Your task to perform on an android device: change your default location settings in chrome Image 0: 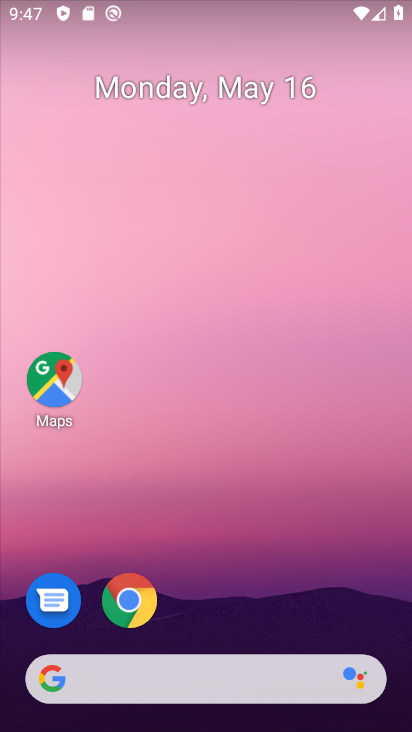
Step 0: drag from (318, 567) to (325, 222)
Your task to perform on an android device: change your default location settings in chrome Image 1: 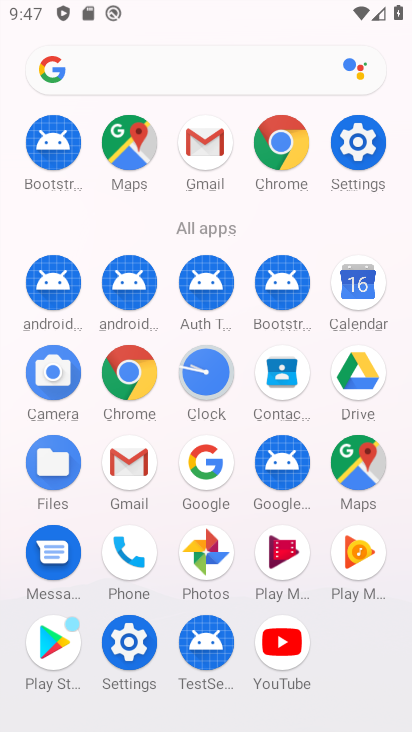
Step 1: click (114, 376)
Your task to perform on an android device: change your default location settings in chrome Image 2: 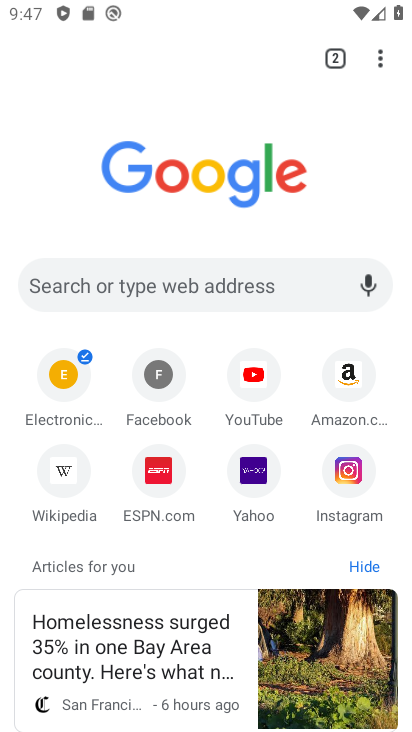
Step 2: drag from (388, 63) to (243, 484)
Your task to perform on an android device: change your default location settings in chrome Image 3: 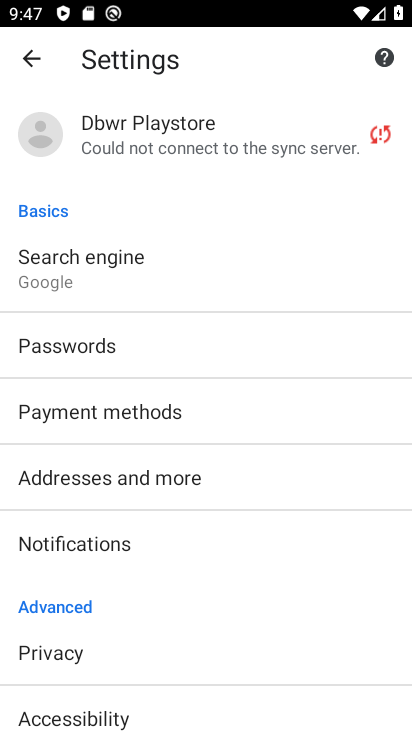
Step 3: drag from (325, 625) to (319, 302)
Your task to perform on an android device: change your default location settings in chrome Image 4: 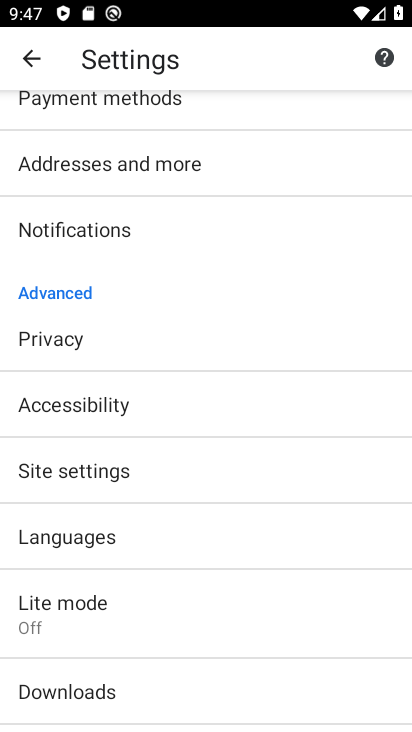
Step 4: click (166, 466)
Your task to perform on an android device: change your default location settings in chrome Image 5: 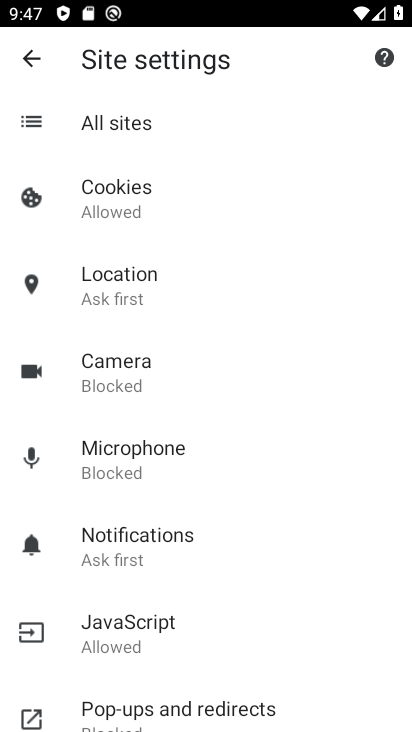
Step 5: click (189, 282)
Your task to perform on an android device: change your default location settings in chrome Image 6: 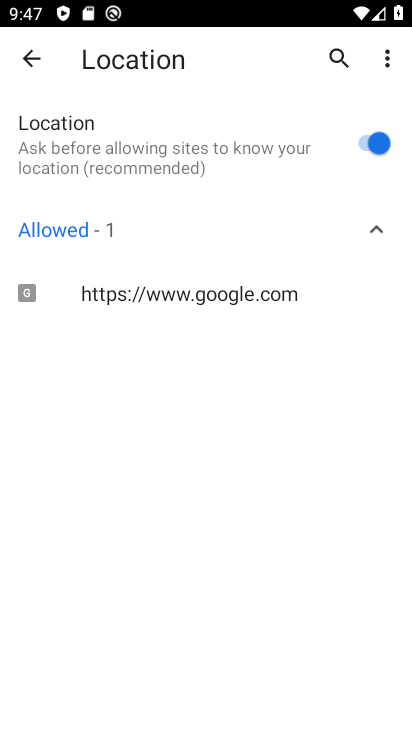
Step 6: click (387, 244)
Your task to perform on an android device: change your default location settings in chrome Image 7: 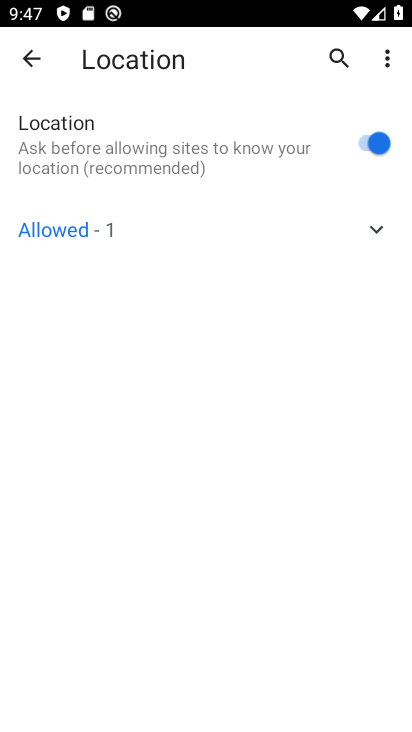
Step 7: click (388, 244)
Your task to perform on an android device: change your default location settings in chrome Image 8: 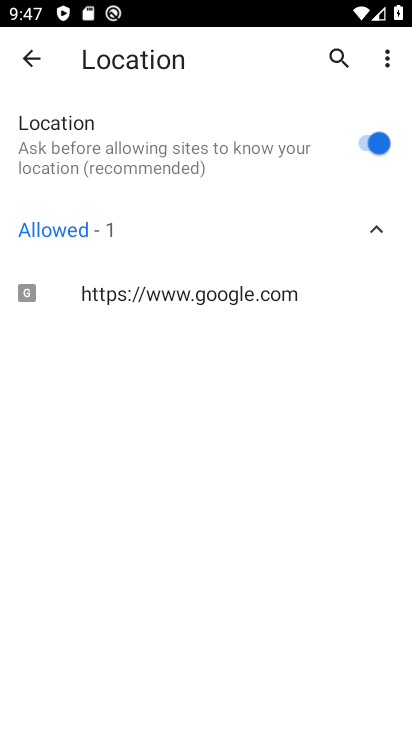
Step 8: click (368, 149)
Your task to perform on an android device: change your default location settings in chrome Image 9: 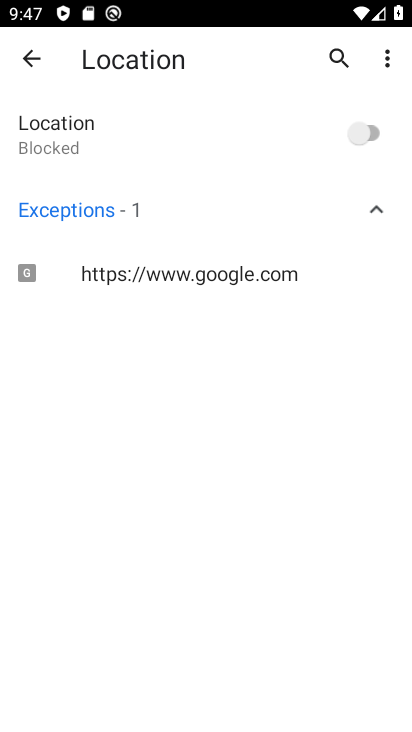
Step 9: task complete